Your task to perform on an android device: Find coffee shops on Maps Image 0: 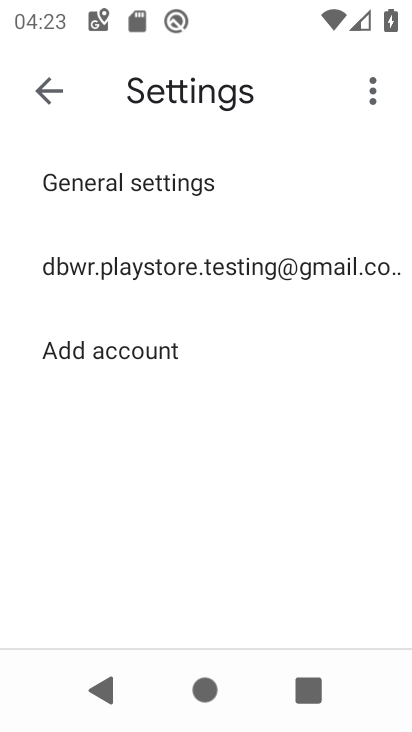
Step 0: press home button
Your task to perform on an android device: Find coffee shops on Maps Image 1: 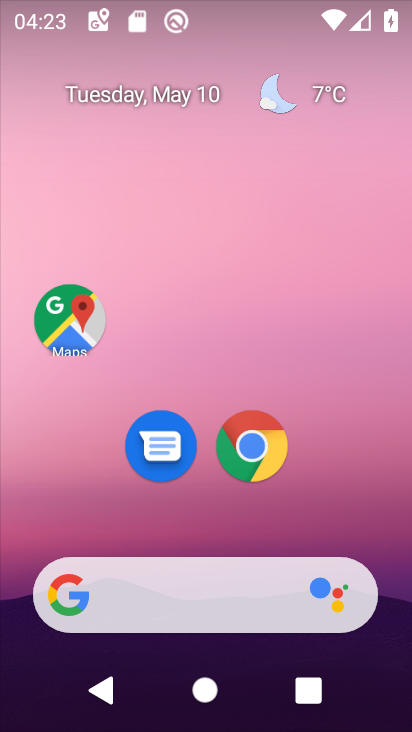
Step 1: click (235, 457)
Your task to perform on an android device: Find coffee shops on Maps Image 2: 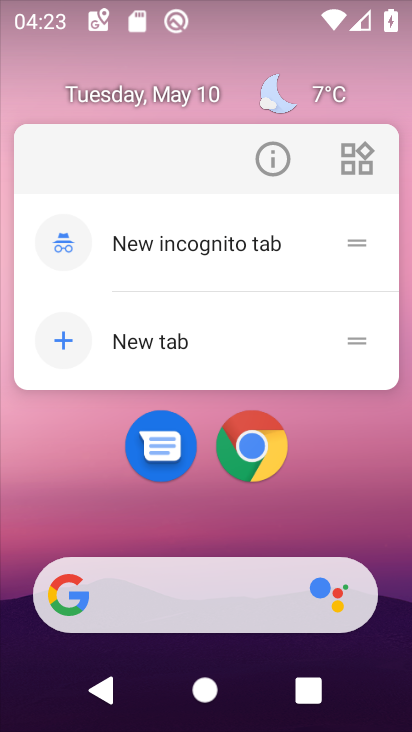
Step 2: click (251, 452)
Your task to perform on an android device: Find coffee shops on Maps Image 3: 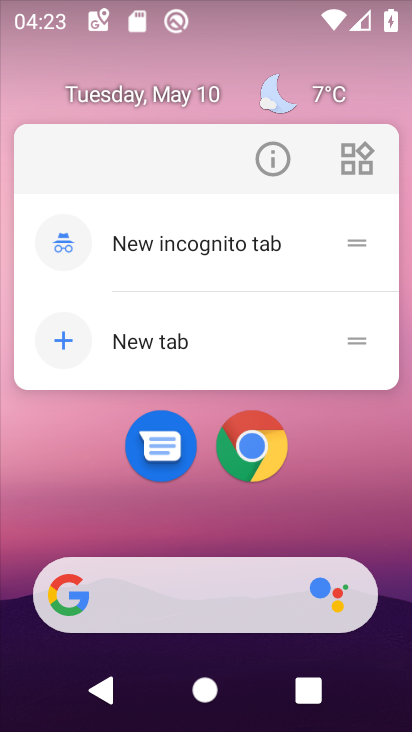
Step 3: click (265, 457)
Your task to perform on an android device: Find coffee shops on Maps Image 4: 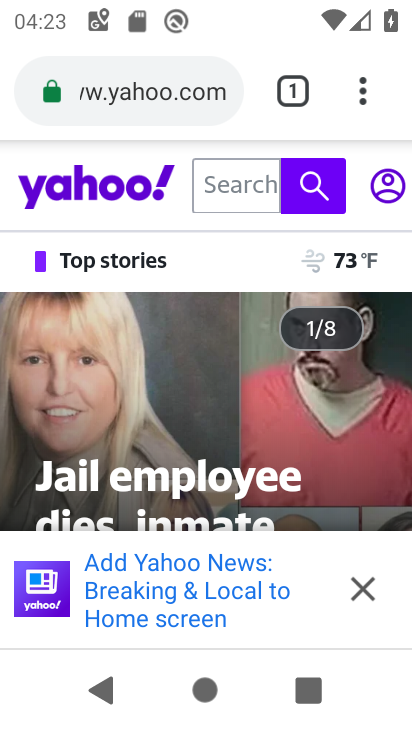
Step 4: press home button
Your task to perform on an android device: Find coffee shops on Maps Image 5: 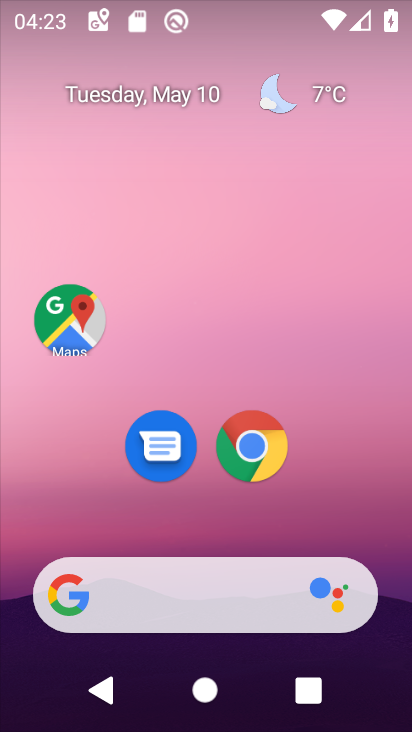
Step 5: press home button
Your task to perform on an android device: Find coffee shops on Maps Image 6: 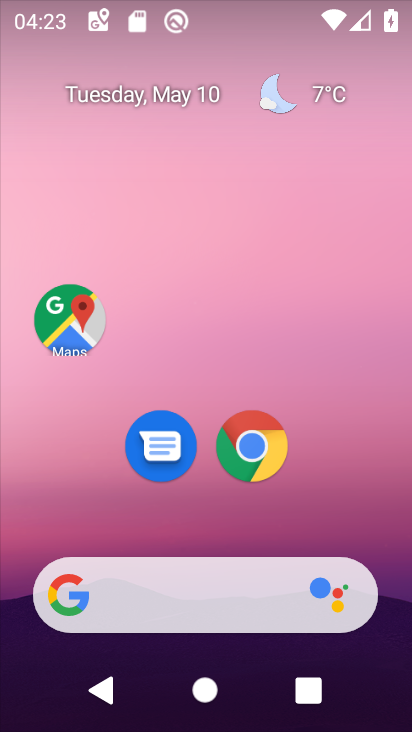
Step 6: drag from (227, 519) to (278, 1)
Your task to perform on an android device: Find coffee shops on Maps Image 7: 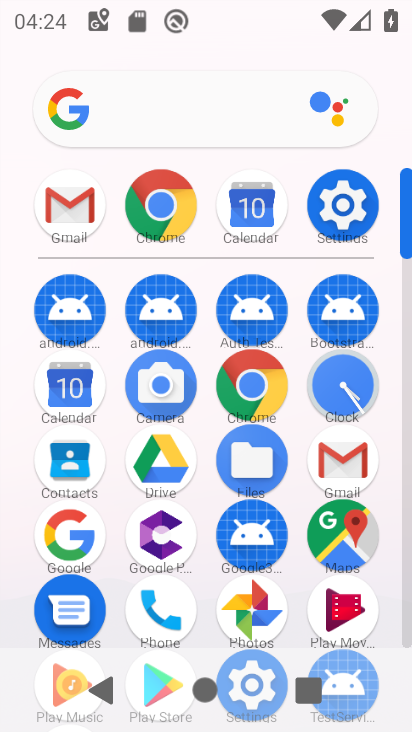
Step 7: click (354, 523)
Your task to perform on an android device: Find coffee shops on Maps Image 8: 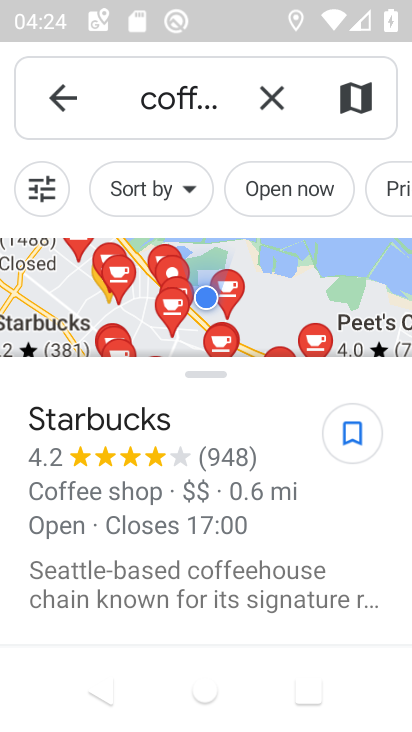
Step 8: click (194, 100)
Your task to perform on an android device: Find coffee shops on Maps Image 9: 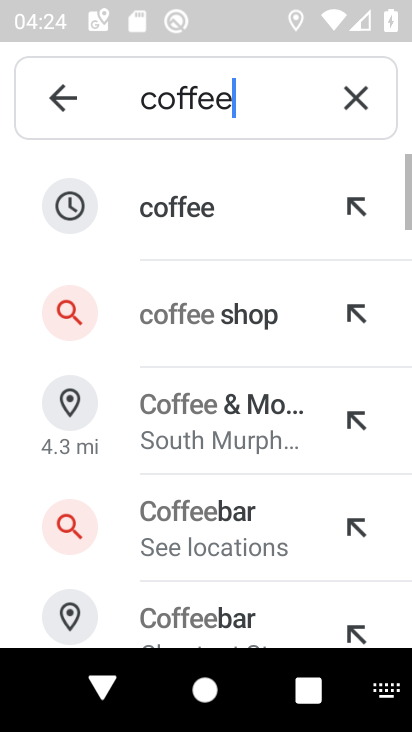
Step 9: click (260, 107)
Your task to perform on an android device: Find coffee shops on Maps Image 10: 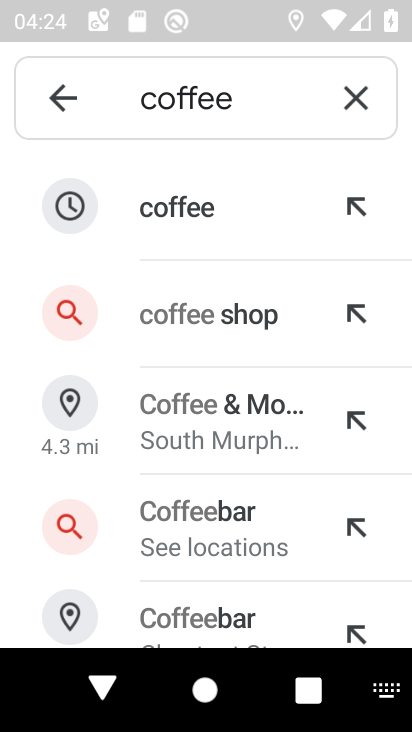
Step 10: type " shops"
Your task to perform on an android device: Find coffee shops on Maps Image 11: 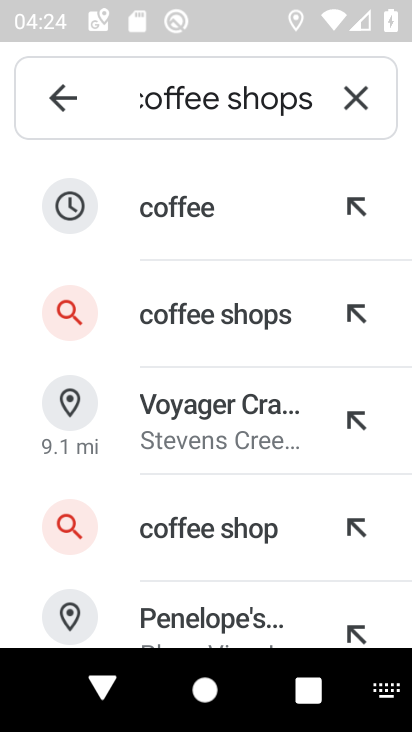
Step 11: task complete